Your task to perform on an android device: Go to Google Image 0: 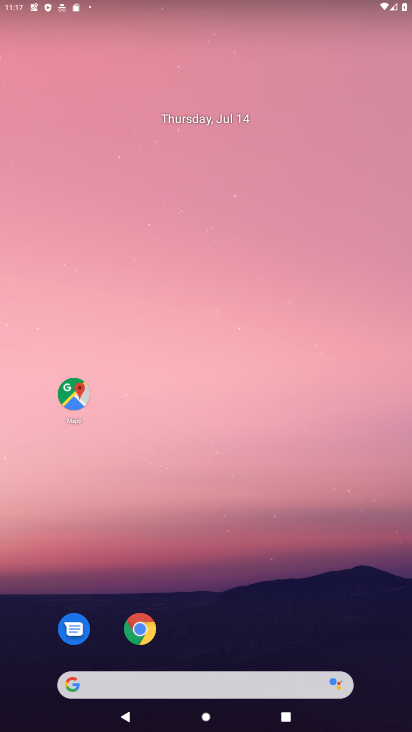
Step 0: press home button
Your task to perform on an android device: Go to Google Image 1: 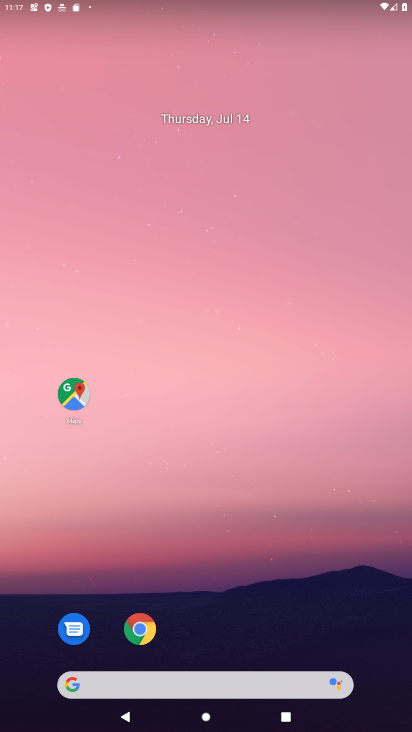
Step 1: drag from (252, 713) to (240, 559)
Your task to perform on an android device: Go to Google Image 2: 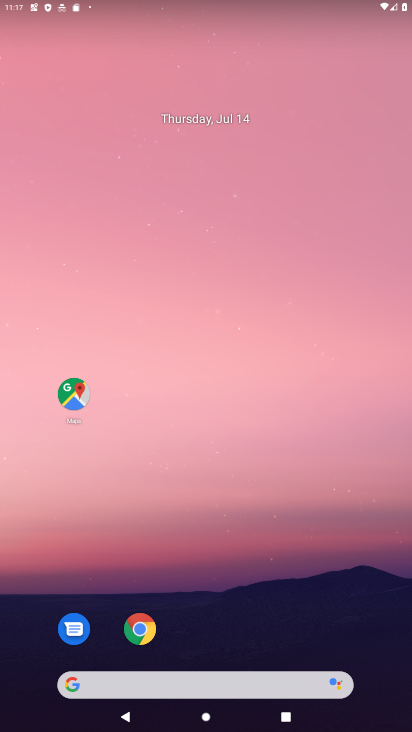
Step 2: click (72, 685)
Your task to perform on an android device: Go to Google Image 3: 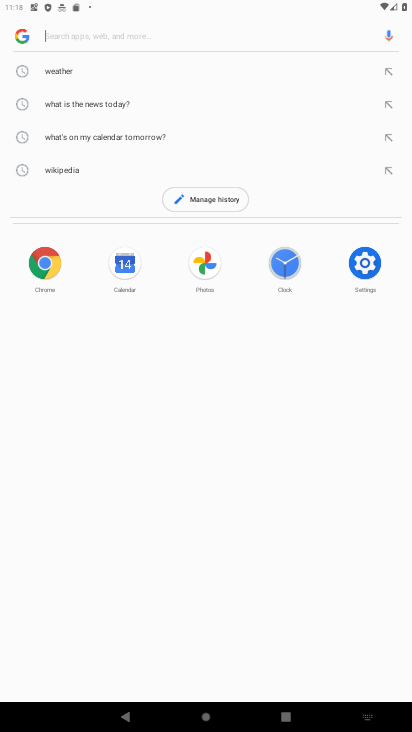
Step 3: click (18, 39)
Your task to perform on an android device: Go to Google Image 4: 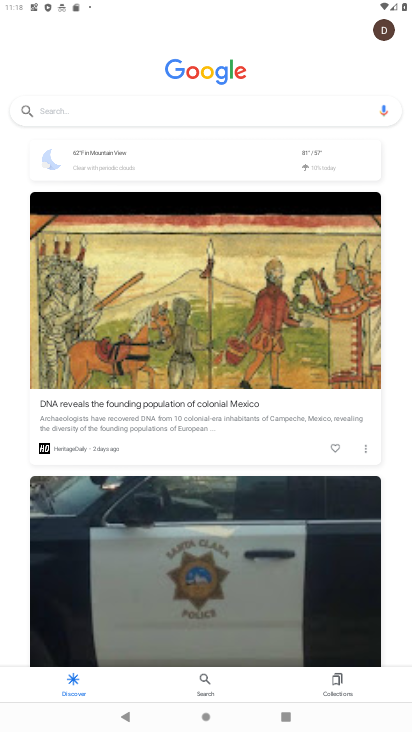
Step 4: task complete